Your task to perform on an android device: Open the calendar and show me this week's events? Image 0: 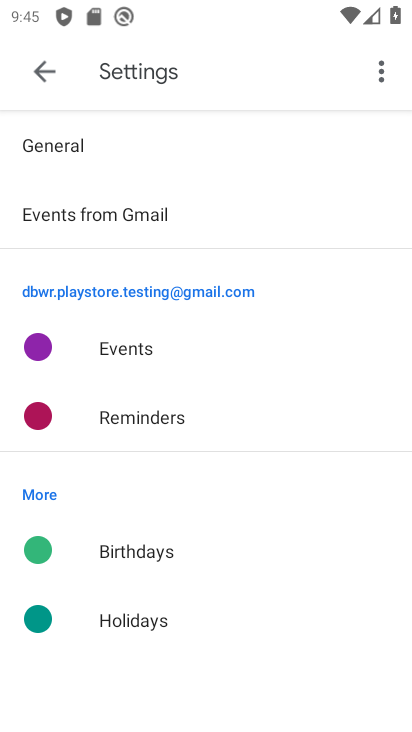
Step 0: press home button
Your task to perform on an android device: Open the calendar and show me this week's events? Image 1: 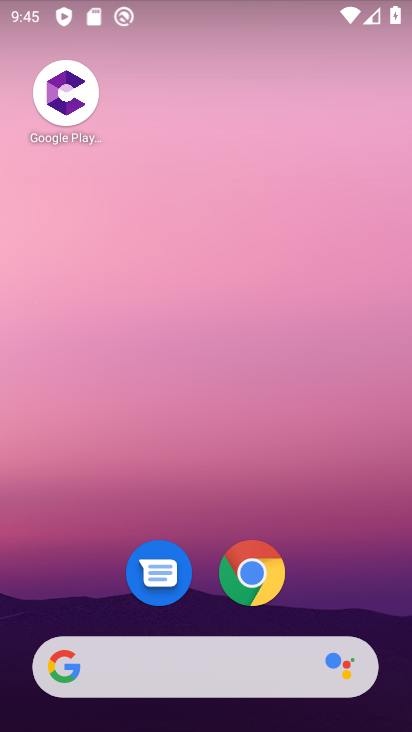
Step 1: drag from (356, 593) to (337, 131)
Your task to perform on an android device: Open the calendar and show me this week's events? Image 2: 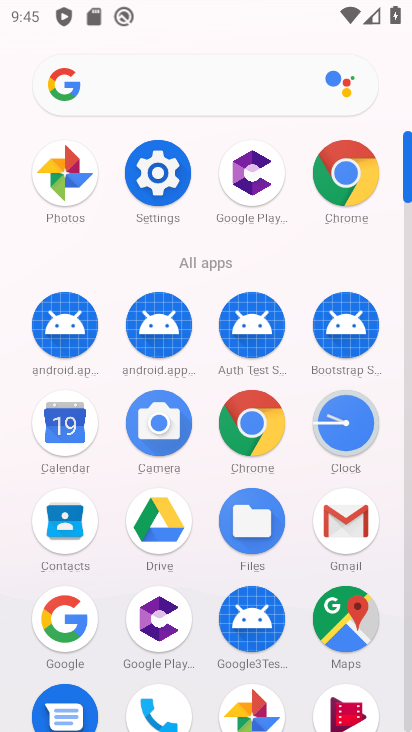
Step 2: click (70, 444)
Your task to perform on an android device: Open the calendar and show me this week's events? Image 3: 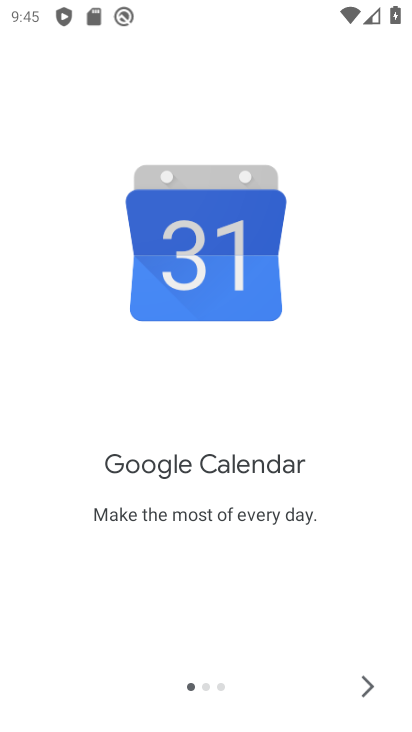
Step 3: click (361, 690)
Your task to perform on an android device: Open the calendar and show me this week's events? Image 4: 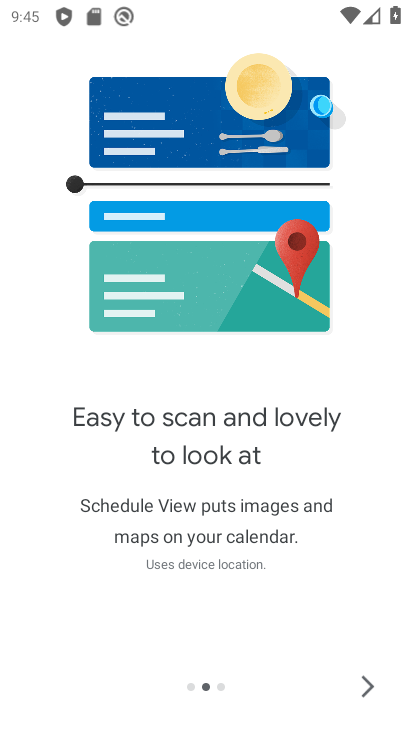
Step 4: click (366, 688)
Your task to perform on an android device: Open the calendar and show me this week's events? Image 5: 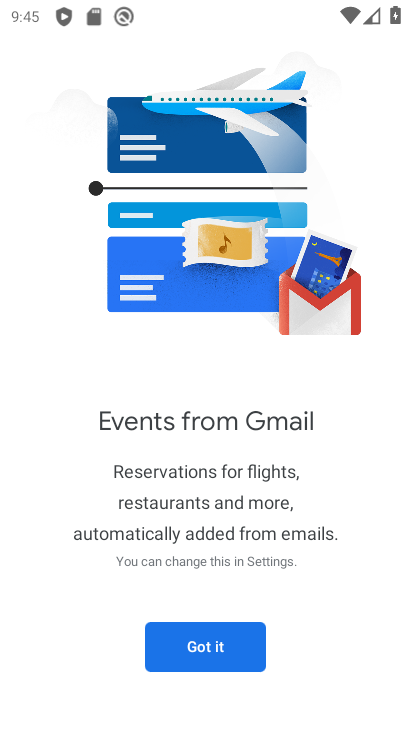
Step 5: click (222, 646)
Your task to perform on an android device: Open the calendar and show me this week's events? Image 6: 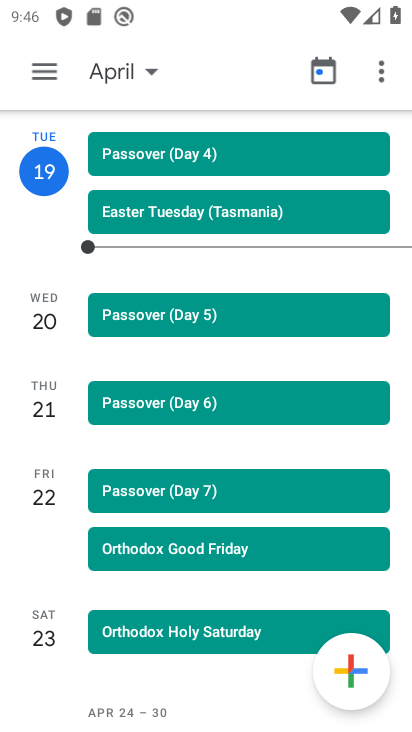
Step 6: task complete